Your task to perform on an android device: install app "Firefox Browser" Image 0: 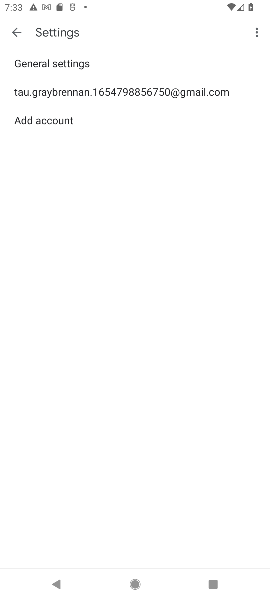
Step 0: press home button
Your task to perform on an android device: install app "Firefox Browser" Image 1: 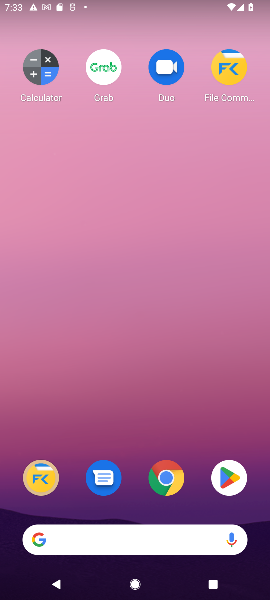
Step 1: click (235, 467)
Your task to perform on an android device: install app "Firefox Browser" Image 2: 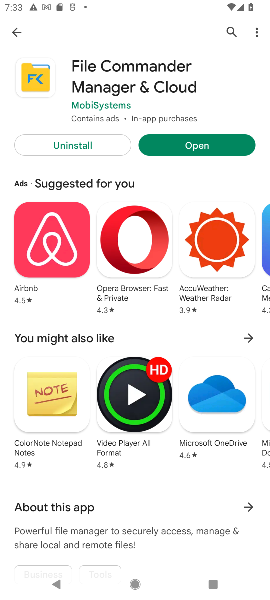
Step 2: click (228, 29)
Your task to perform on an android device: install app "Firefox Browser" Image 3: 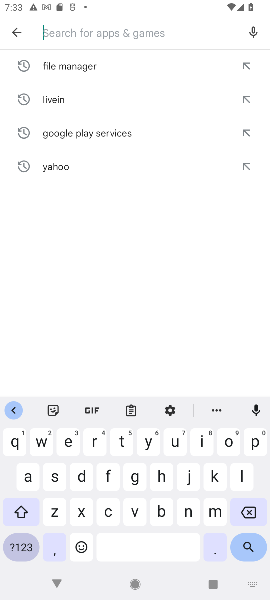
Step 3: click (105, 470)
Your task to perform on an android device: install app "Firefox Browser" Image 4: 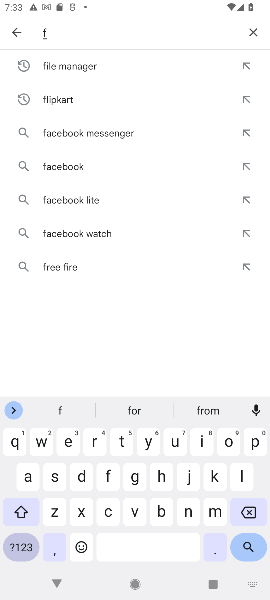
Step 4: click (204, 438)
Your task to perform on an android device: install app "Firefox Browser" Image 5: 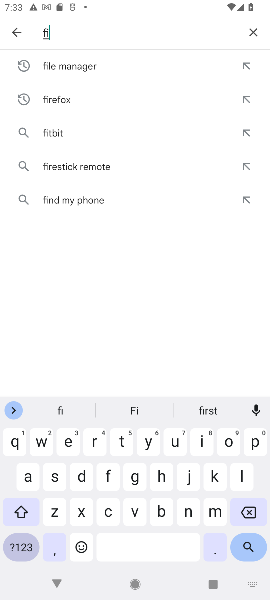
Step 5: click (70, 99)
Your task to perform on an android device: install app "Firefox Browser" Image 6: 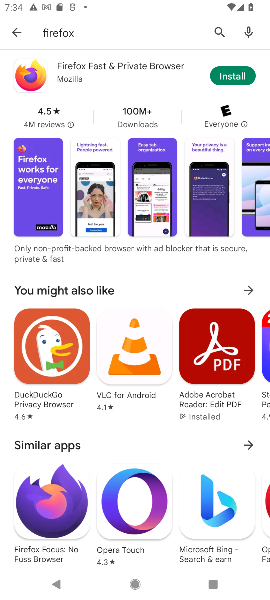
Step 6: click (232, 78)
Your task to perform on an android device: install app "Firefox Browser" Image 7: 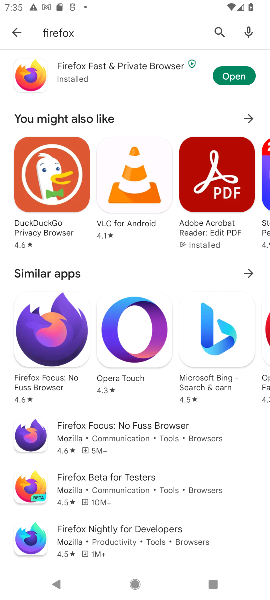
Step 7: task complete